Your task to perform on an android device: turn off airplane mode Image 0: 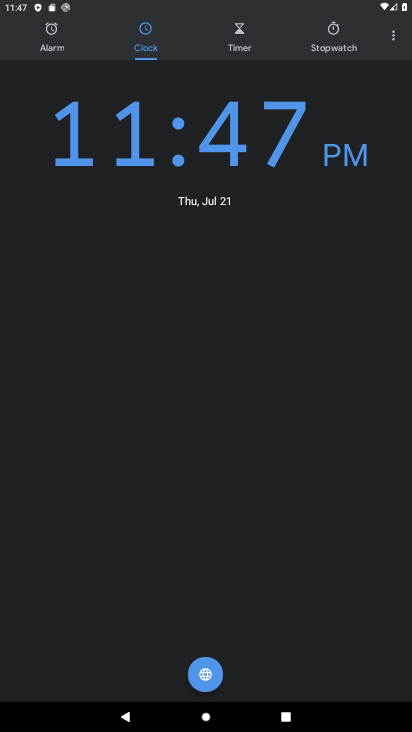
Step 0: press back button
Your task to perform on an android device: turn off airplane mode Image 1: 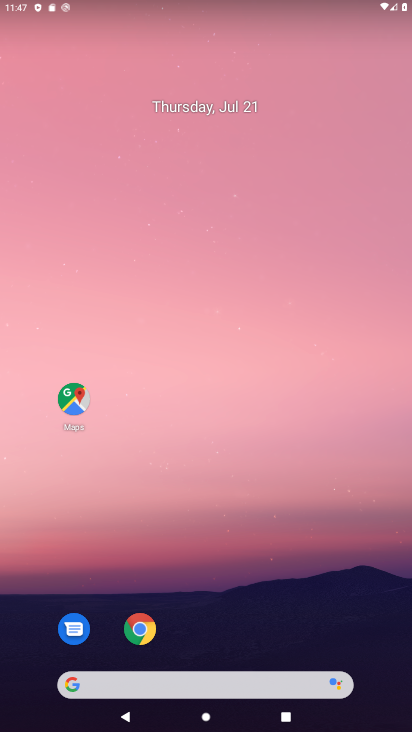
Step 1: drag from (225, 658) to (136, 128)
Your task to perform on an android device: turn off airplane mode Image 2: 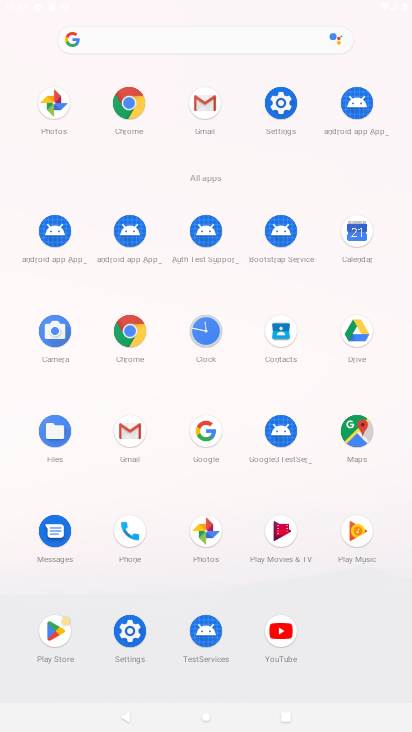
Step 2: drag from (201, 454) to (158, 193)
Your task to perform on an android device: turn off airplane mode Image 3: 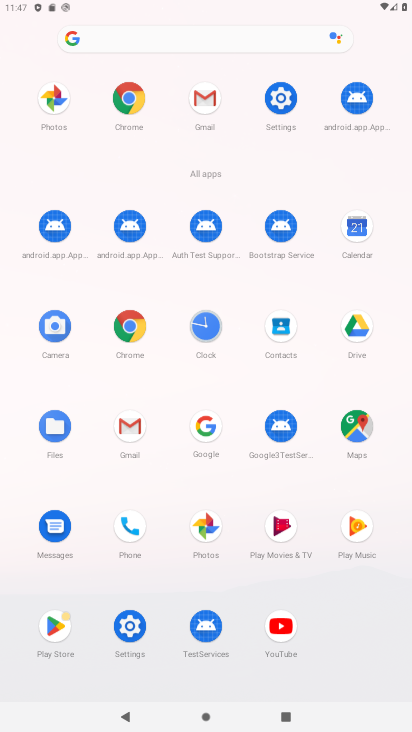
Step 3: drag from (206, 615) to (212, 284)
Your task to perform on an android device: turn off airplane mode Image 4: 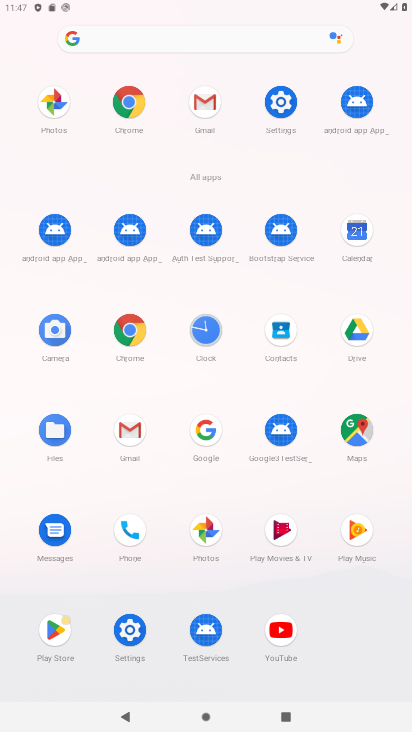
Step 4: click (272, 114)
Your task to perform on an android device: turn off airplane mode Image 5: 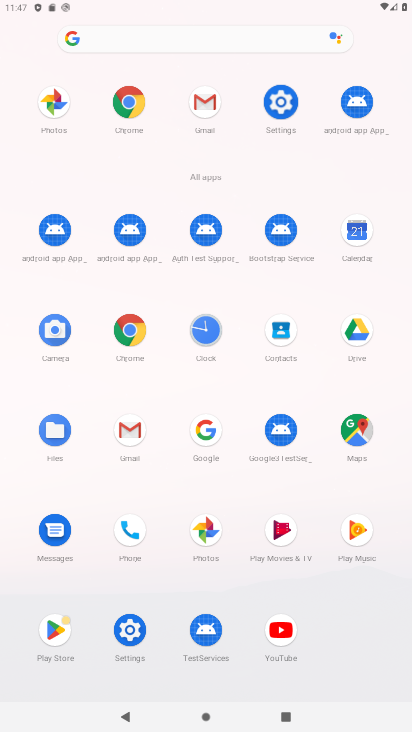
Step 5: click (275, 112)
Your task to perform on an android device: turn off airplane mode Image 6: 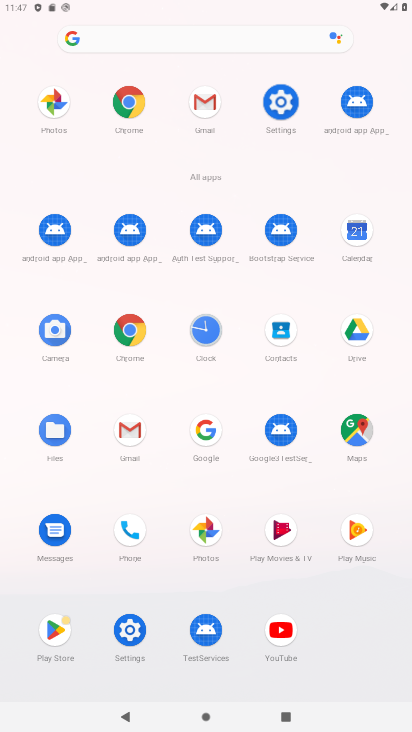
Step 6: click (275, 112)
Your task to perform on an android device: turn off airplane mode Image 7: 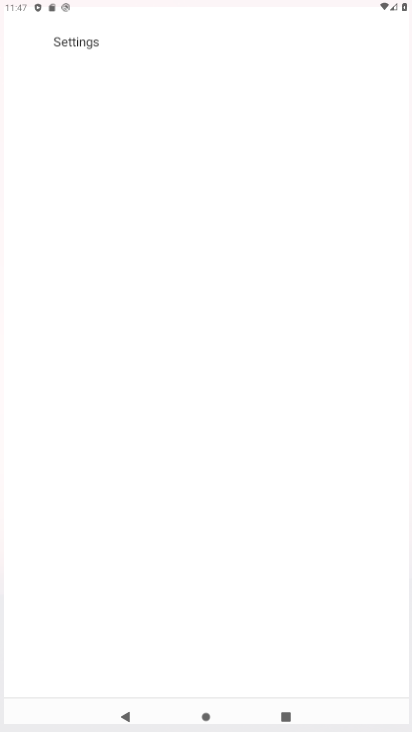
Step 7: click (274, 111)
Your task to perform on an android device: turn off airplane mode Image 8: 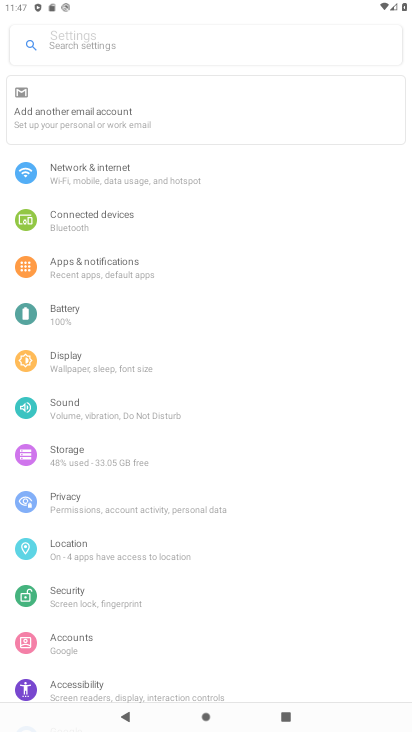
Step 8: click (274, 111)
Your task to perform on an android device: turn off airplane mode Image 9: 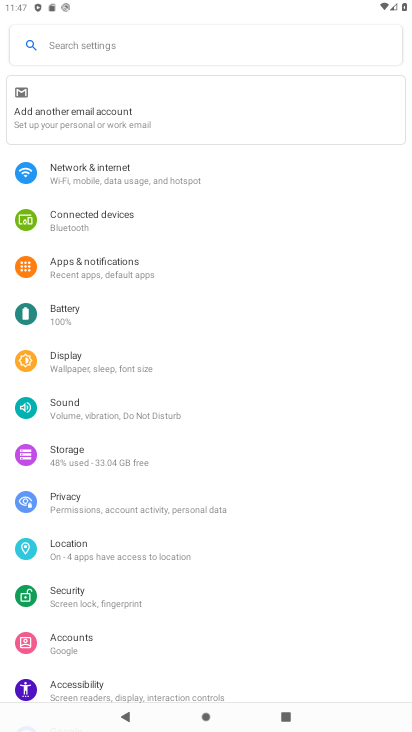
Step 9: click (98, 171)
Your task to perform on an android device: turn off airplane mode Image 10: 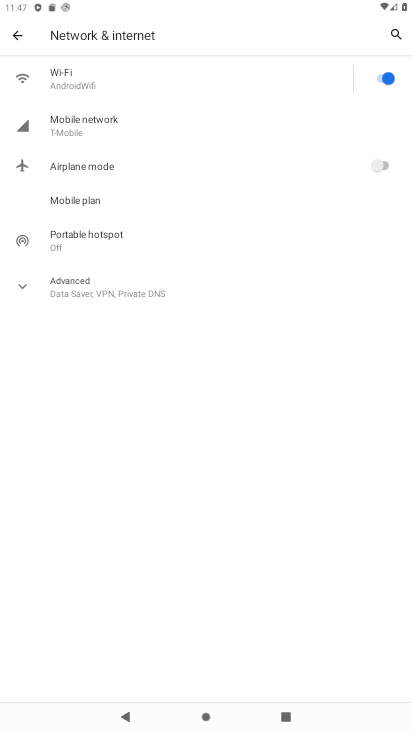
Step 10: click (132, 174)
Your task to perform on an android device: turn off airplane mode Image 11: 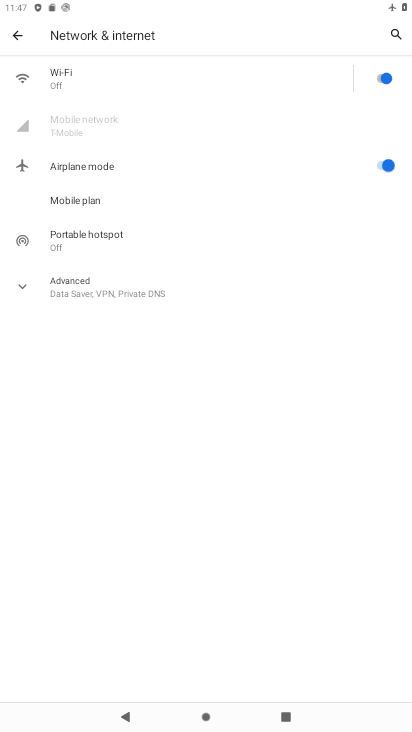
Step 11: click (120, 176)
Your task to perform on an android device: turn off airplane mode Image 12: 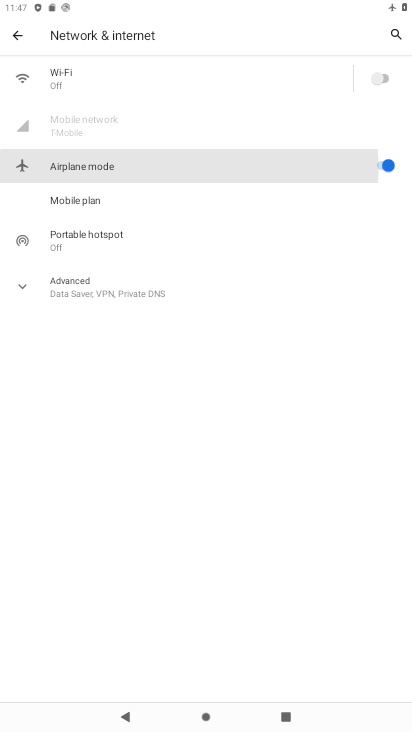
Step 12: click (153, 207)
Your task to perform on an android device: turn off airplane mode Image 13: 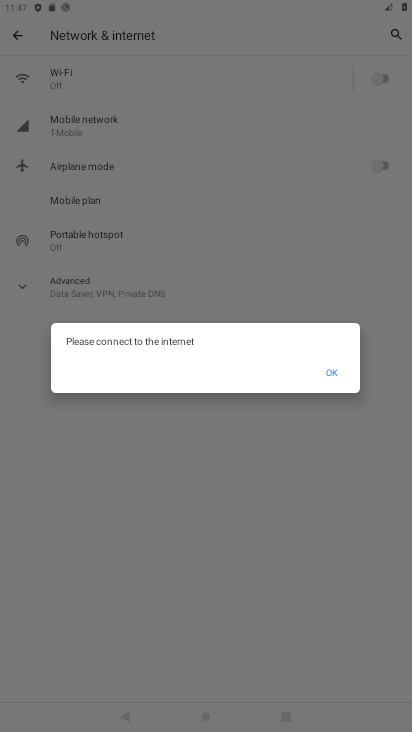
Step 13: click (384, 166)
Your task to perform on an android device: turn off airplane mode Image 14: 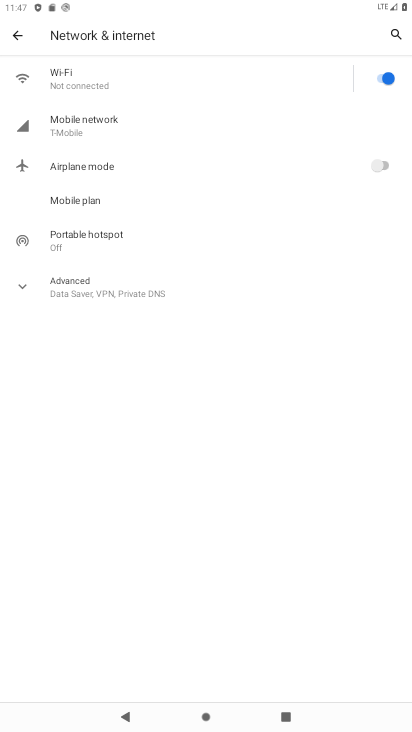
Step 14: task complete